Your task to perform on an android device: Open Google Image 0: 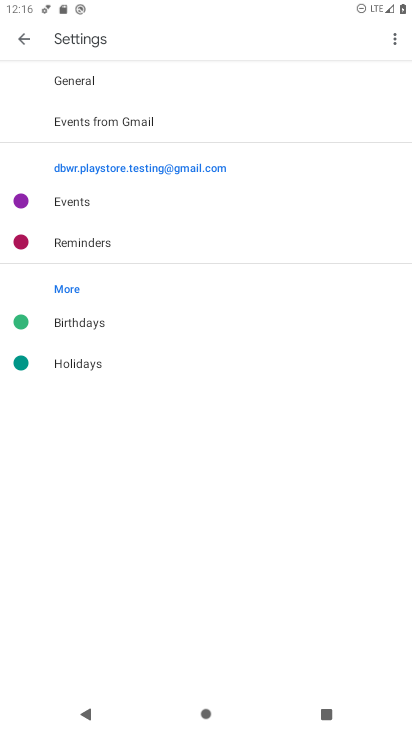
Step 0: press home button
Your task to perform on an android device: Open Google Image 1: 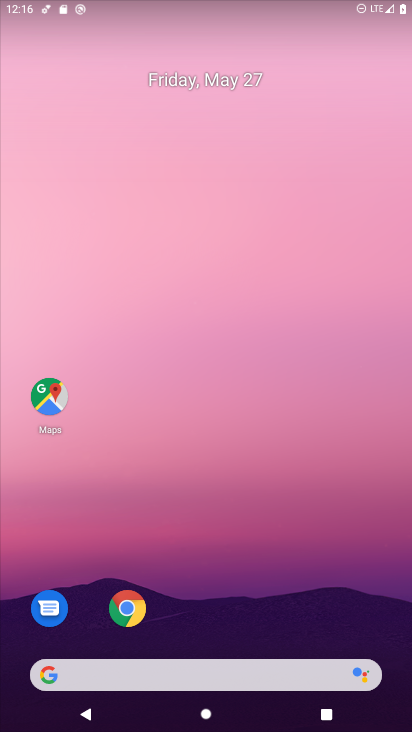
Step 1: drag from (135, 681) to (314, 118)
Your task to perform on an android device: Open Google Image 2: 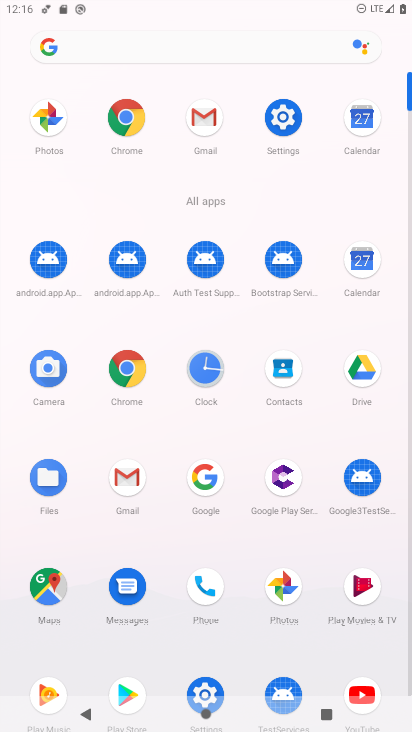
Step 2: click (210, 484)
Your task to perform on an android device: Open Google Image 3: 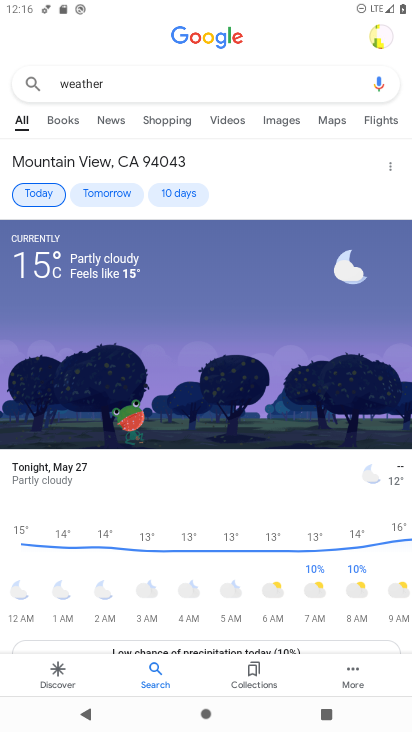
Step 3: click (205, 36)
Your task to perform on an android device: Open Google Image 4: 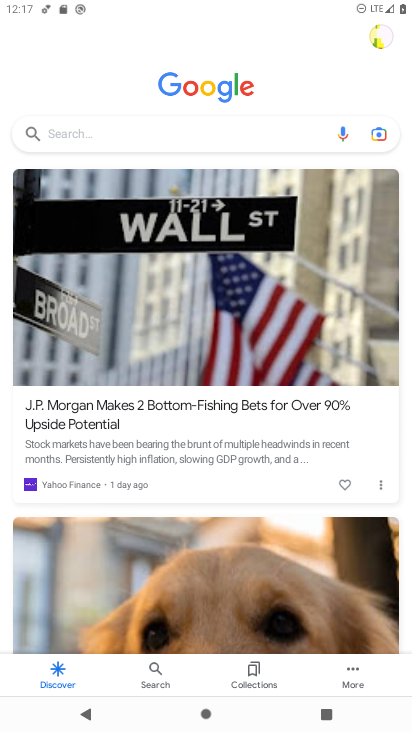
Step 4: task complete